Your task to perform on an android device: turn off location history Image 0: 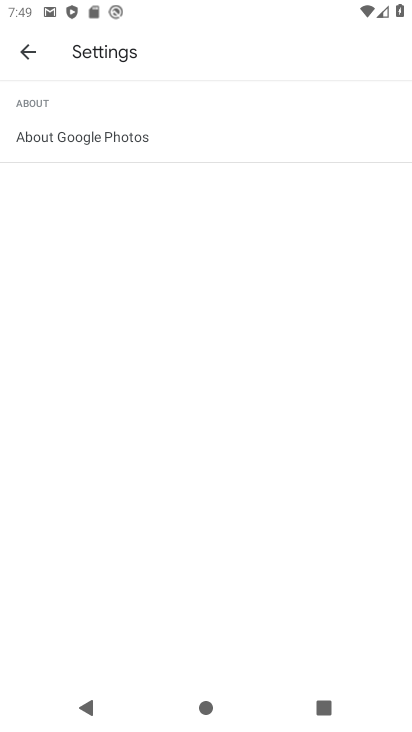
Step 0: drag from (191, 639) to (375, 365)
Your task to perform on an android device: turn off location history Image 1: 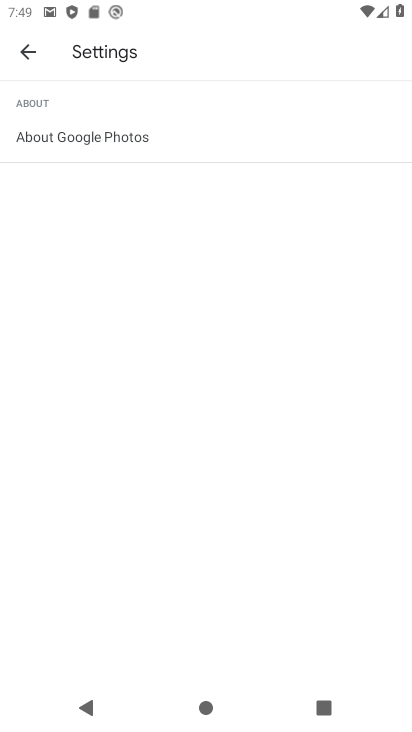
Step 1: press home button
Your task to perform on an android device: turn off location history Image 2: 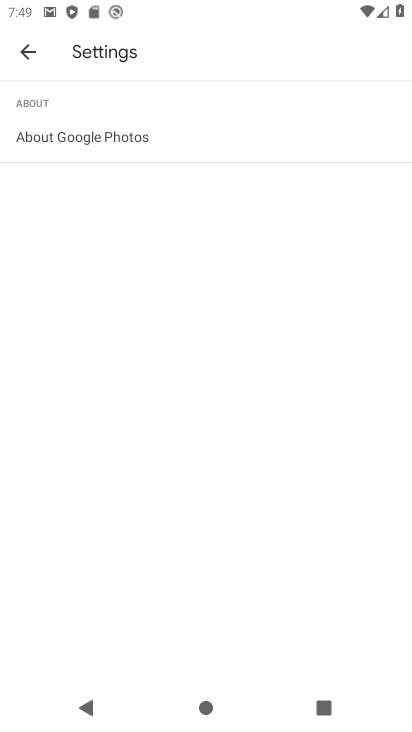
Step 2: drag from (375, 365) to (410, 448)
Your task to perform on an android device: turn off location history Image 3: 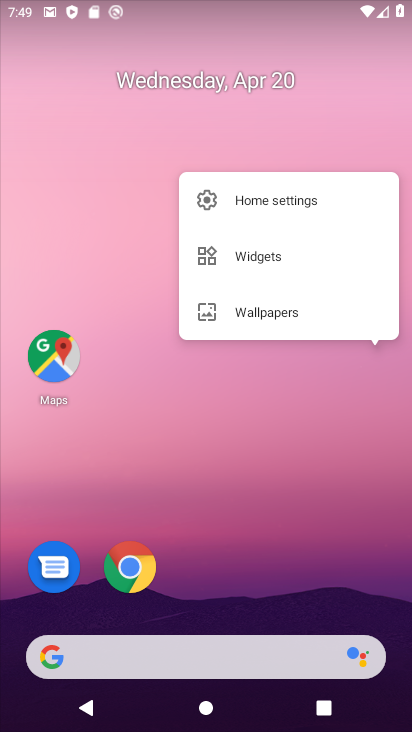
Step 3: drag from (242, 659) to (166, 98)
Your task to perform on an android device: turn off location history Image 4: 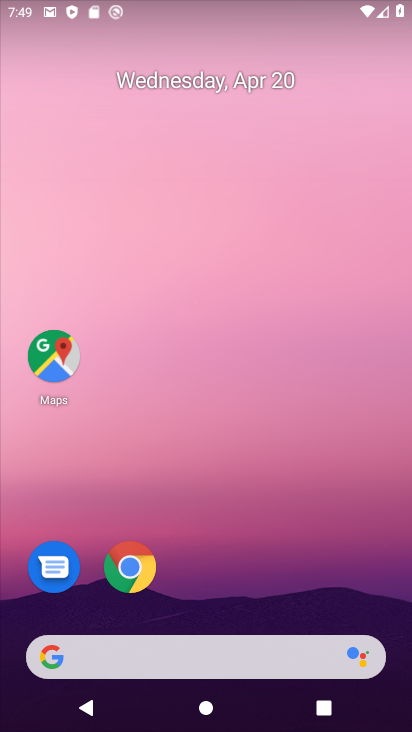
Step 4: drag from (230, 668) to (191, 99)
Your task to perform on an android device: turn off location history Image 5: 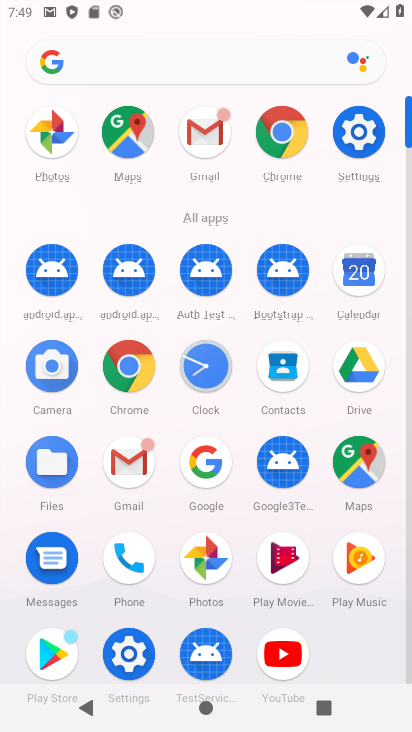
Step 5: click (114, 658)
Your task to perform on an android device: turn off location history Image 6: 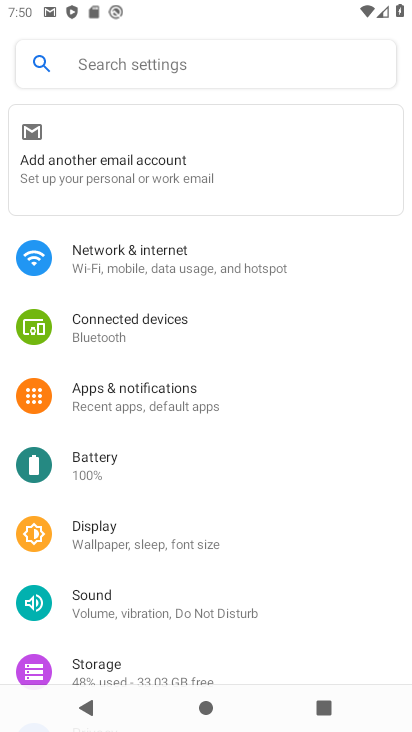
Step 6: drag from (171, 601) to (161, 166)
Your task to perform on an android device: turn off location history Image 7: 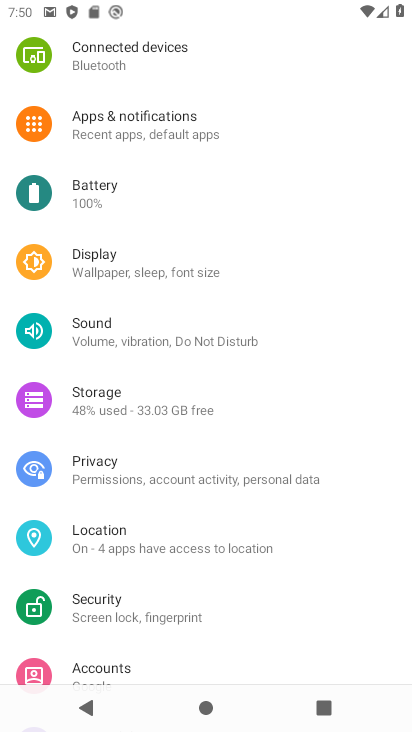
Step 7: click (119, 533)
Your task to perform on an android device: turn off location history Image 8: 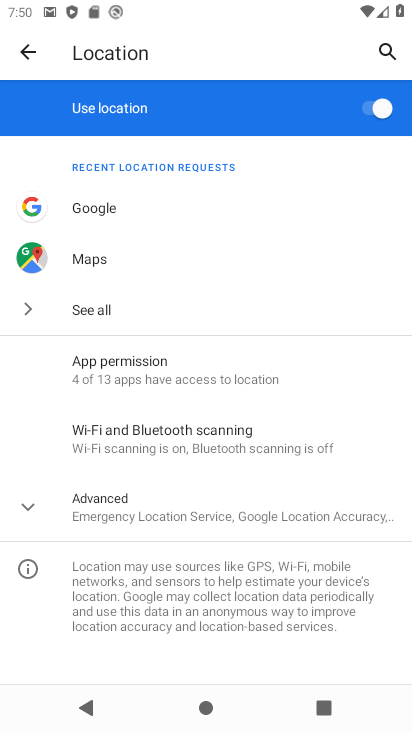
Step 8: click (135, 518)
Your task to perform on an android device: turn off location history Image 9: 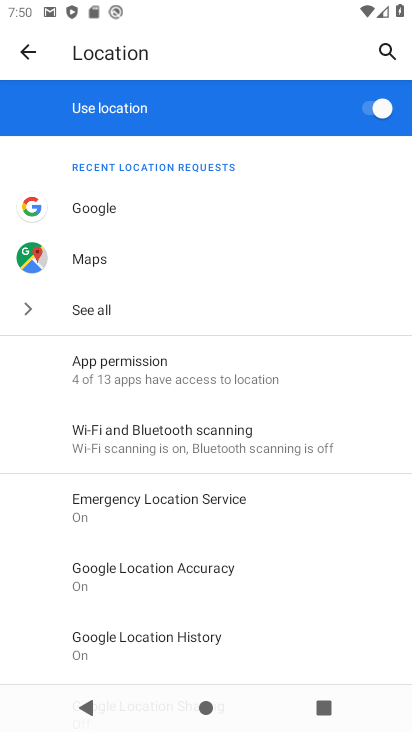
Step 9: click (226, 633)
Your task to perform on an android device: turn off location history Image 10: 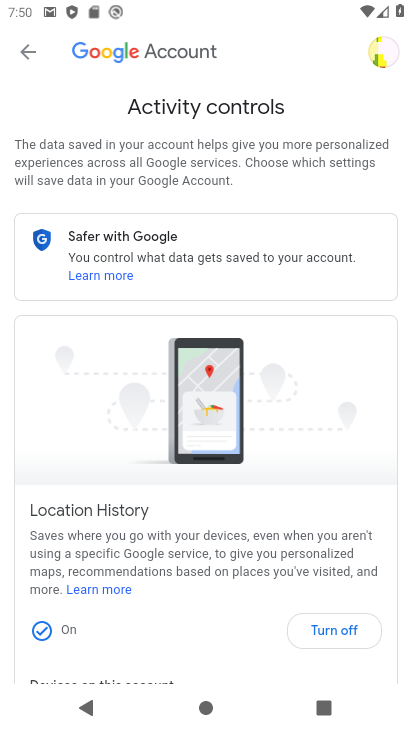
Step 10: click (344, 629)
Your task to perform on an android device: turn off location history Image 11: 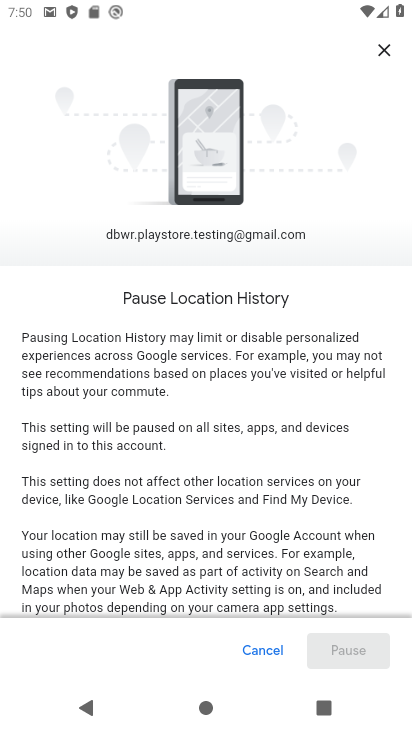
Step 11: drag from (308, 586) to (252, 37)
Your task to perform on an android device: turn off location history Image 12: 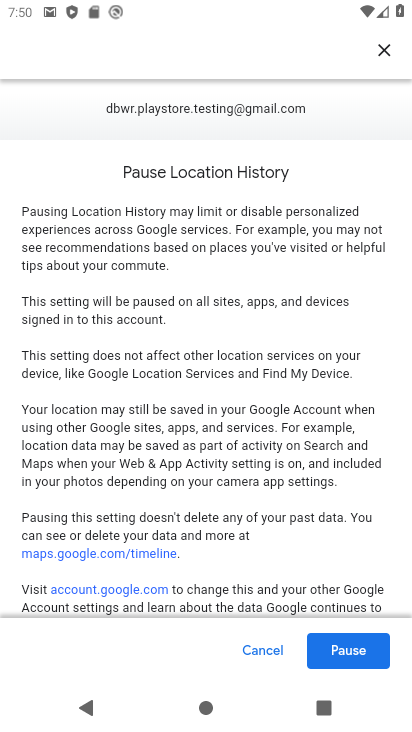
Step 12: click (337, 664)
Your task to perform on an android device: turn off location history Image 13: 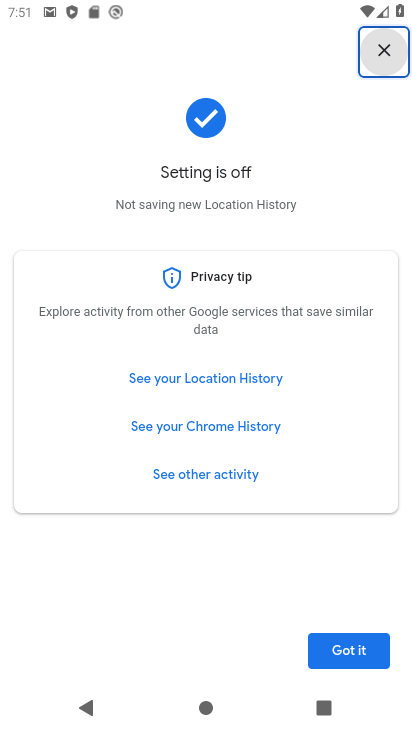
Step 13: click (364, 633)
Your task to perform on an android device: turn off location history Image 14: 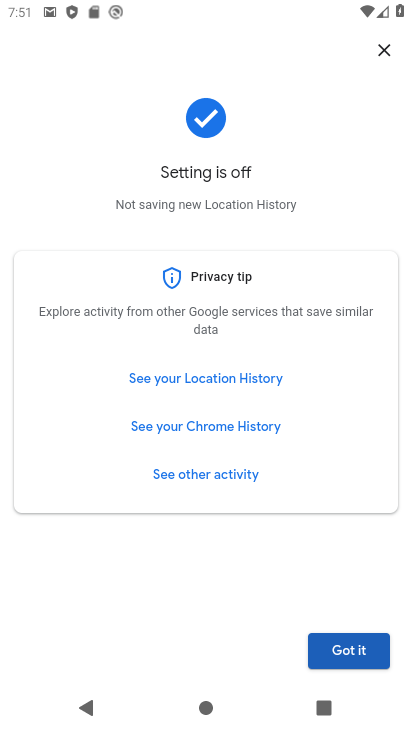
Step 14: click (343, 657)
Your task to perform on an android device: turn off location history Image 15: 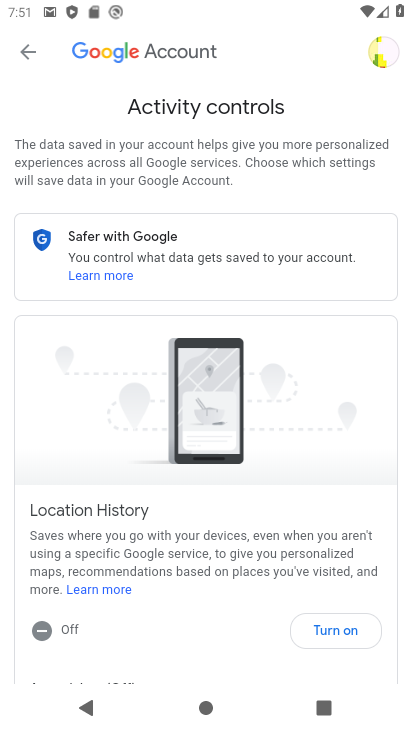
Step 15: task complete